Your task to perform on an android device: toggle location history Image 0: 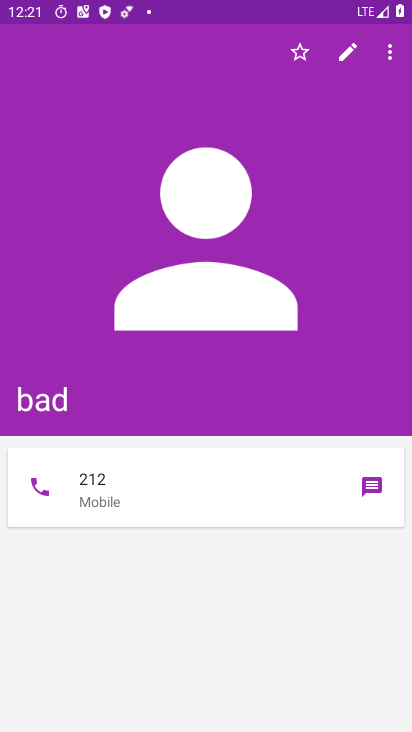
Step 0: click (293, 520)
Your task to perform on an android device: toggle location history Image 1: 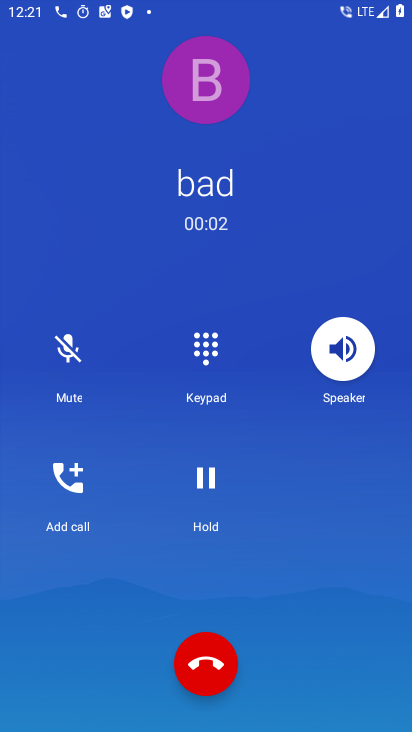
Step 1: click (213, 651)
Your task to perform on an android device: toggle location history Image 2: 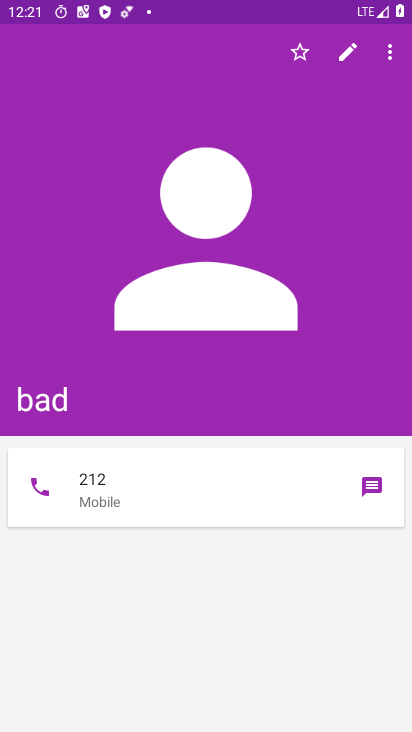
Step 2: press home button
Your task to perform on an android device: toggle location history Image 3: 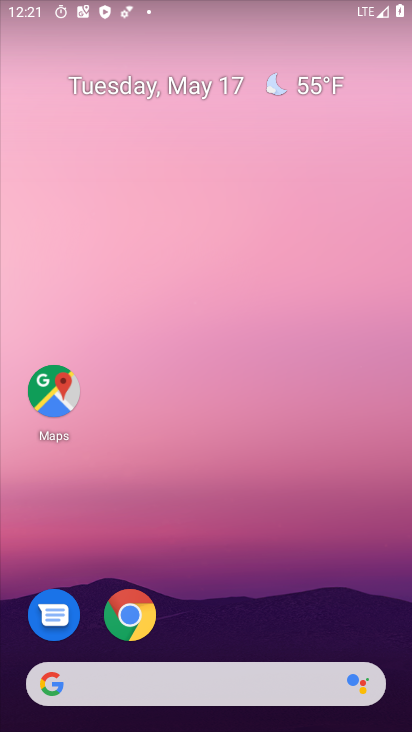
Step 3: drag from (208, 570) to (222, 395)
Your task to perform on an android device: toggle location history Image 4: 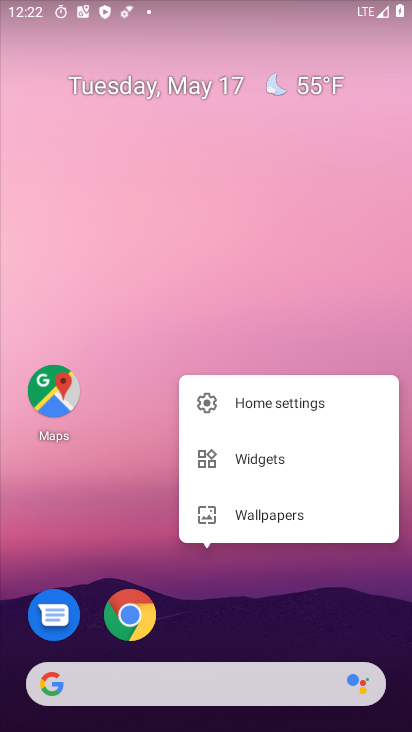
Step 4: click (128, 437)
Your task to perform on an android device: toggle location history Image 5: 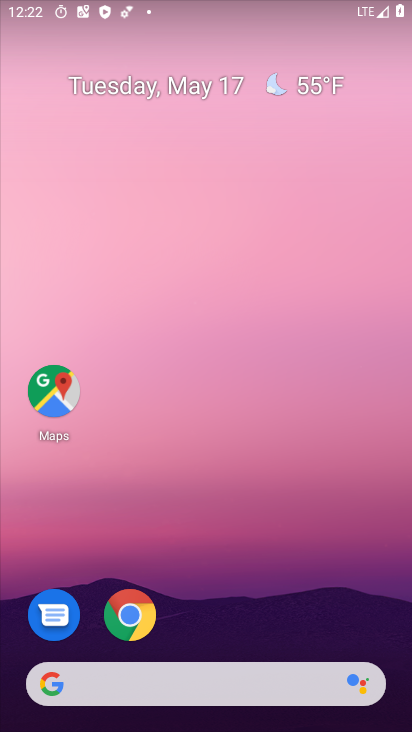
Step 5: drag from (263, 616) to (229, 213)
Your task to perform on an android device: toggle location history Image 6: 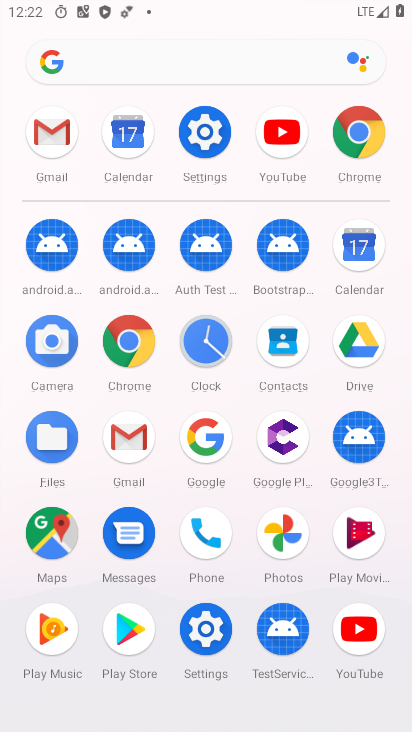
Step 6: click (51, 538)
Your task to perform on an android device: toggle location history Image 7: 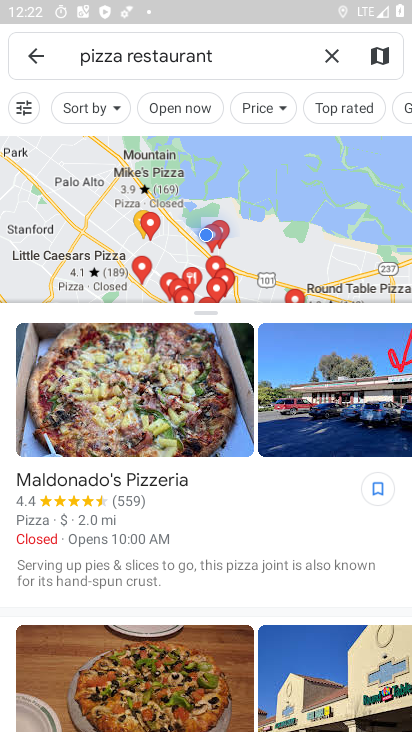
Step 7: click (16, 45)
Your task to perform on an android device: toggle location history Image 8: 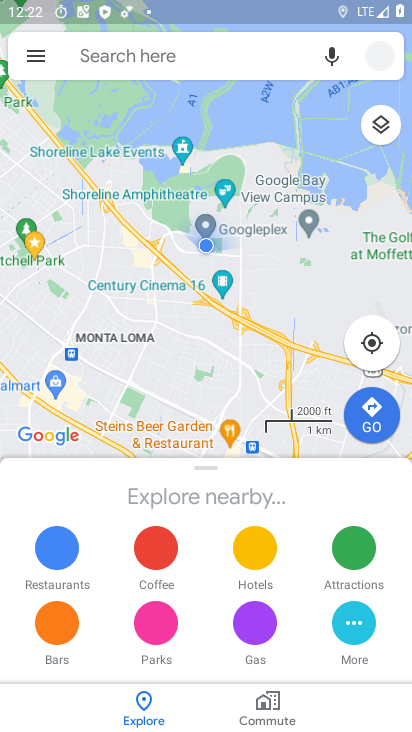
Step 8: click (33, 58)
Your task to perform on an android device: toggle location history Image 9: 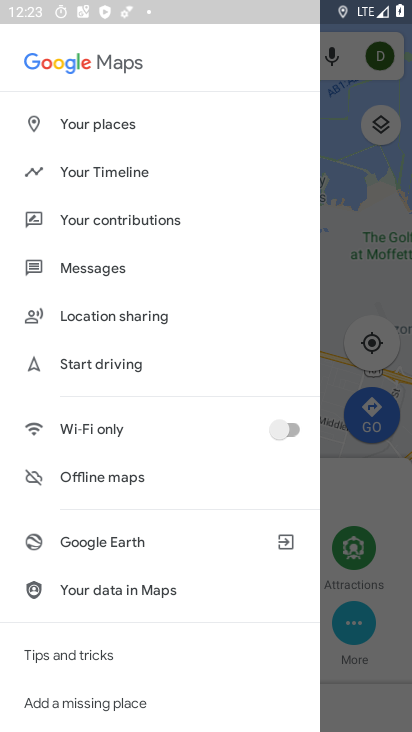
Step 9: click (147, 167)
Your task to perform on an android device: toggle location history Image 10: 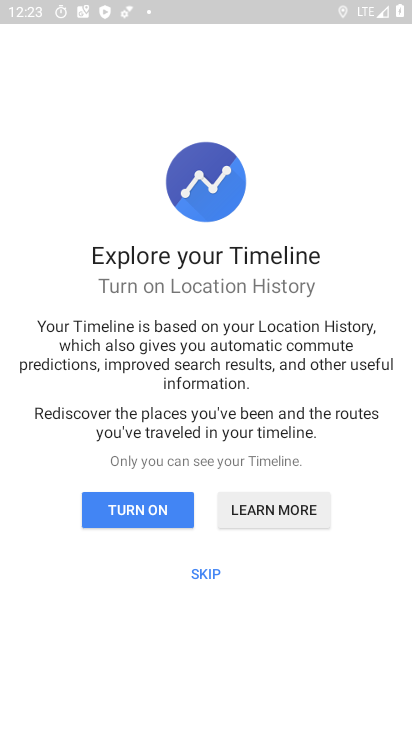
Step 10: click (138, 507)
Your task to perform on an android device: toggle location history Image 11: 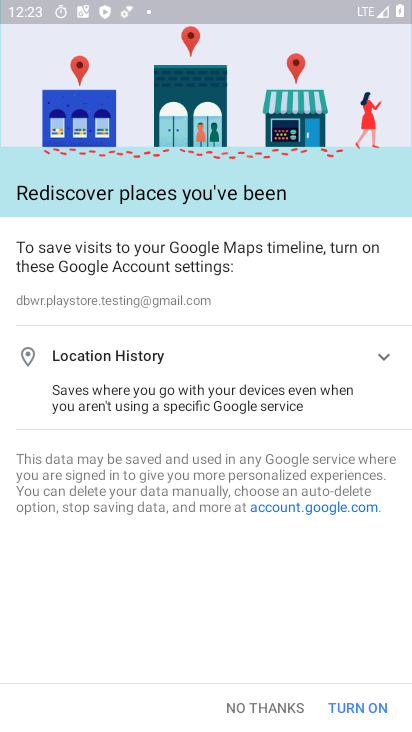
Step 11: click (352, 709)
Your task to perform on an android device: toggle location history Image 12: 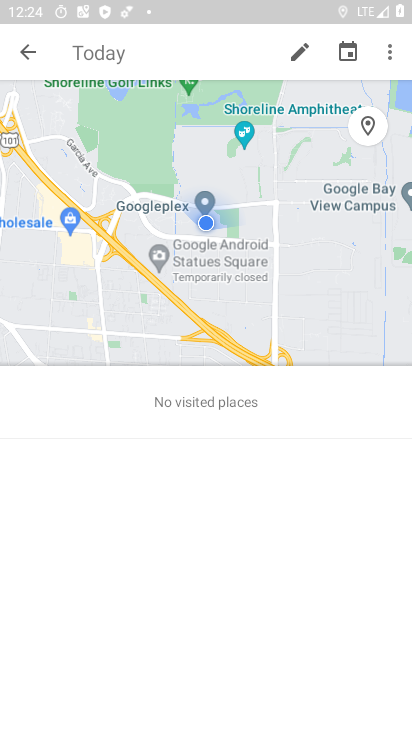
Step 12: task complete